Your task to perform on an android device: Go to Android settings Image 0: 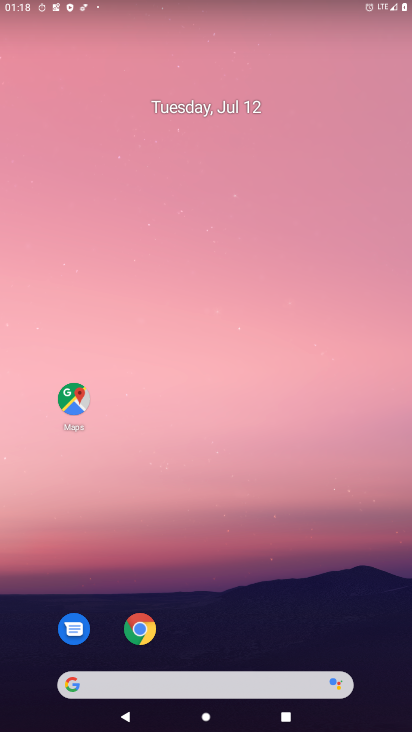
Step 0: drag from (44, 659) to (272, 17)
Your task to perform on an android device: Go to Android settings Image 1: 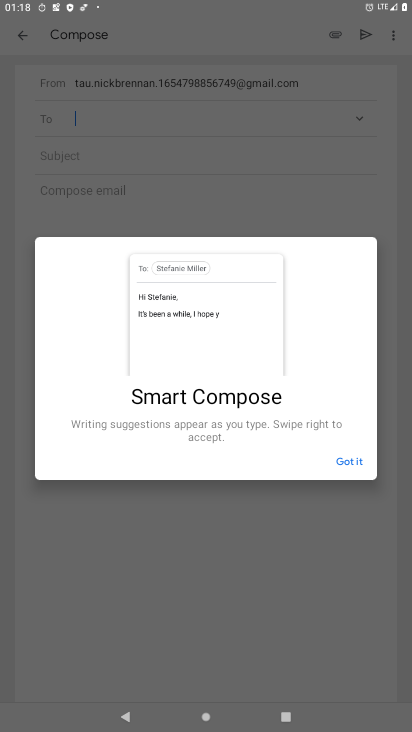
Step 1: press home button
Your task to perform on an android device: Go to Android settings Image 2: 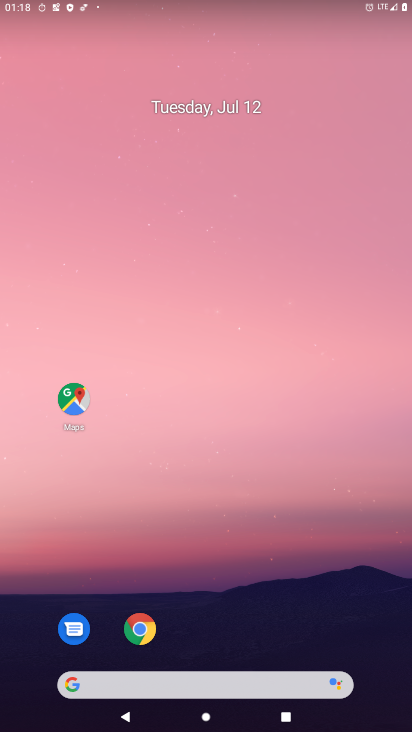
Step 2: drag from (97, 413) to (219, 0)
Your task to perform on an android device: Go to Android settings Image 3: 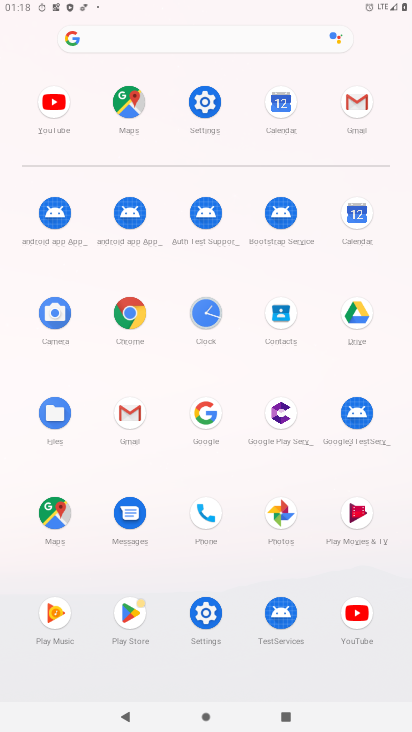
Step 3: click (202, 609)
Your task to perform on an android device: Go to Android settings Image 4: 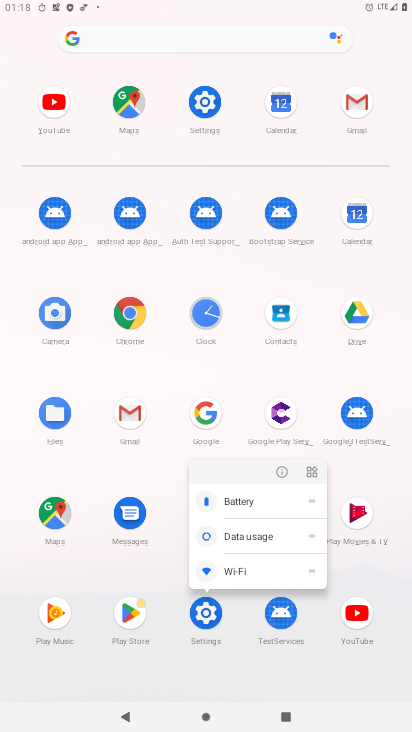
Step 4: click (205, 600)
Your task to perform on an android device: Go to Android settings Image 5: 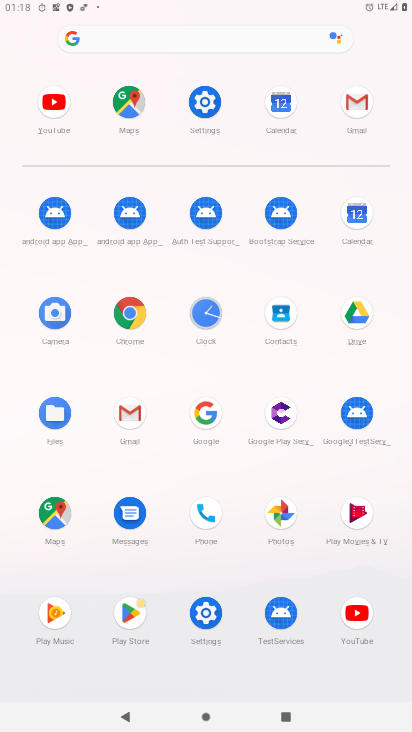
Step 5: click (202, 617)
Your task to perform on an android device: Go to Android settings Image 6: 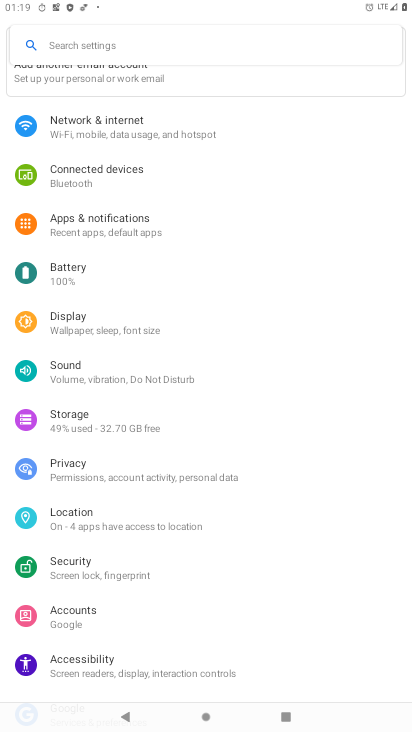
Step 6: drag from (214, 648) to (245, 105)
Your task to perform on an android device: Go to Android settings Image 7: 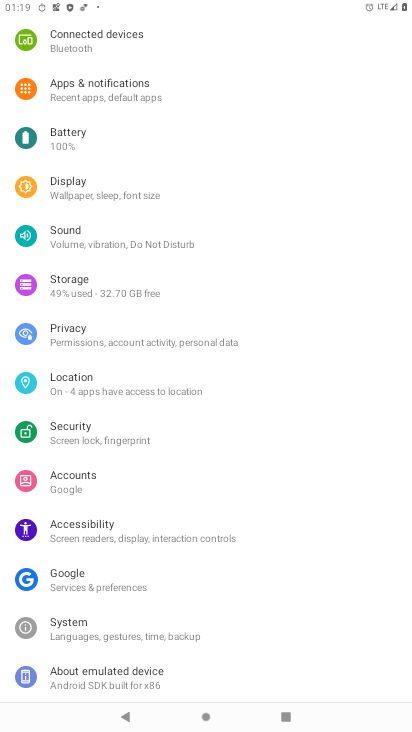
Step 7: click (119, 670)
Your task to perform on an android device: Go to Android settings Image 8: 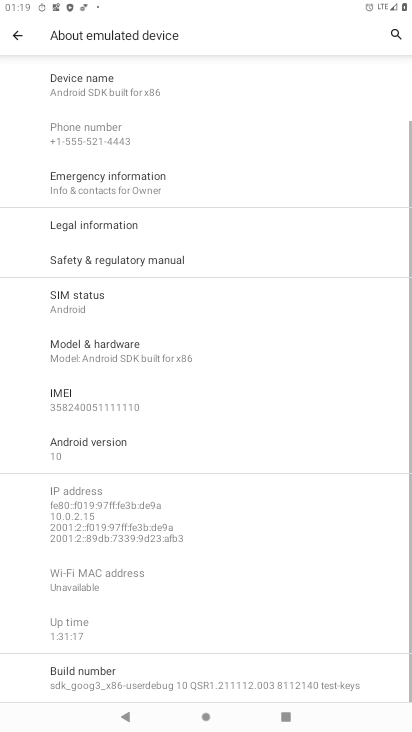
Step 8: task complete